Your task to perform on an android device: open a bookmark in the chrome app Image 0: 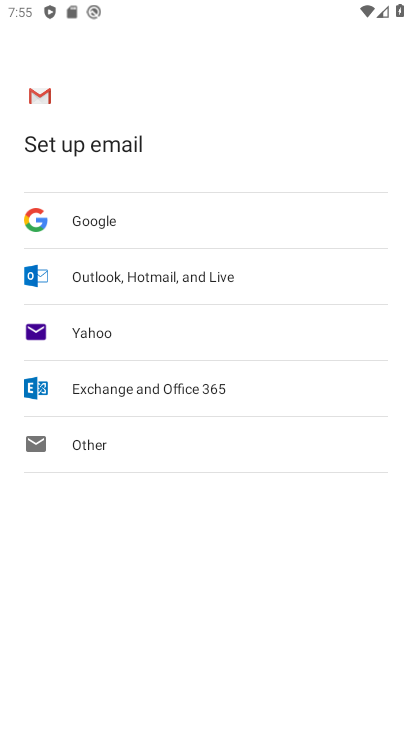
Step 0: press home button
Your task to perform on an android device: open a bookmark in the chrome app Image 1: 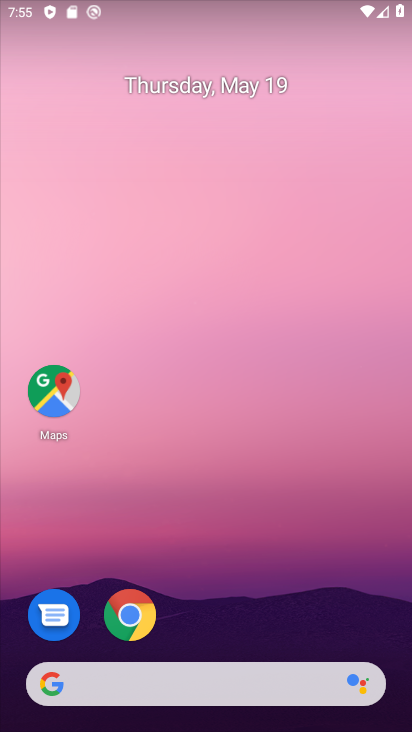
Step 1: click (128, 616)
Your task to perform on an android device: open a bookmark in the chrome app Image 2: 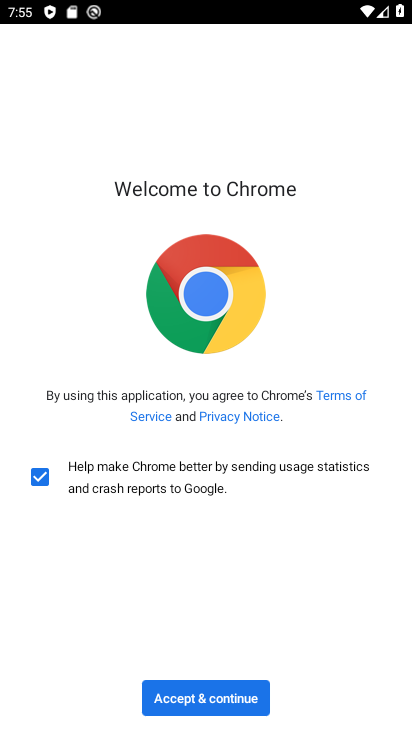
Step 2: click (212, 698)
Your task to perform on an android device: open a bookmark in the chrome app Image 3: 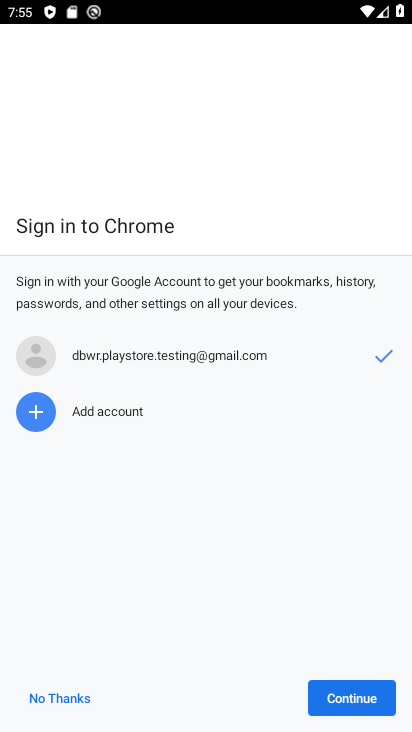
Step 3: click (349, 699)
Your task to perform on an android device: open a bookmark in the chrome app Image 4: 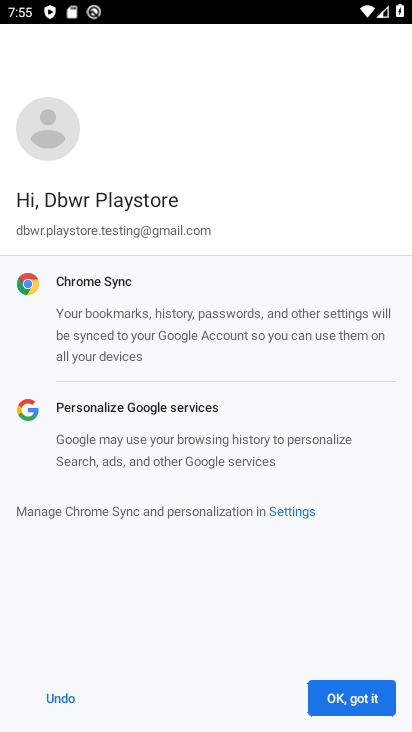
Step 4: click (348, 699)
Your task to perform on an android device: open a bookmark in the chrome app Image 5: 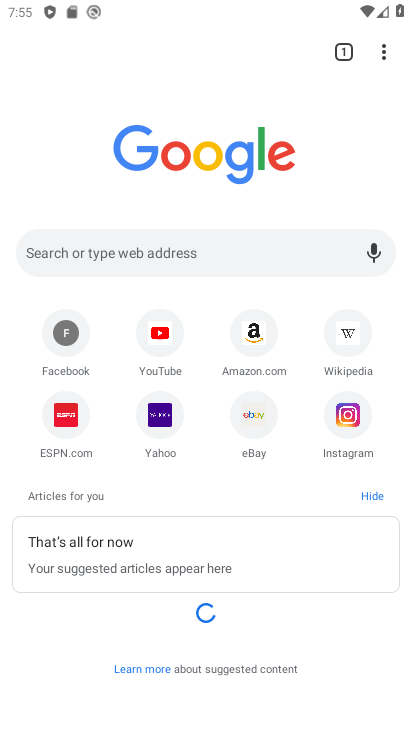
Step 5: click (372, 58)
Your task to perform on an android device: open a bookmark in the chrome app Image 6: 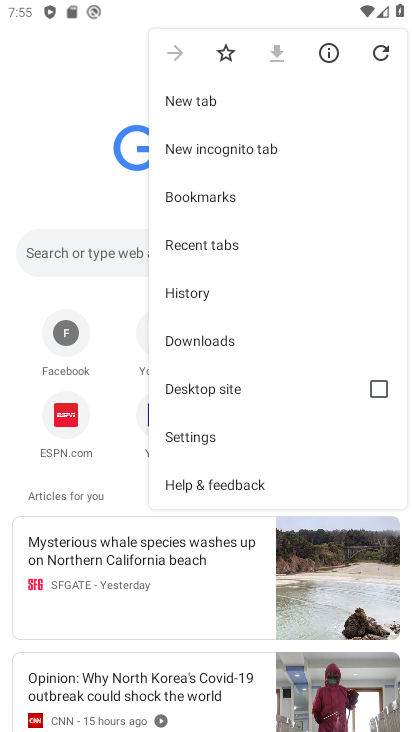
Step 6: click (215, 192)
Your task to perform on an android device: open a bookmark in the chrome app Image 7: 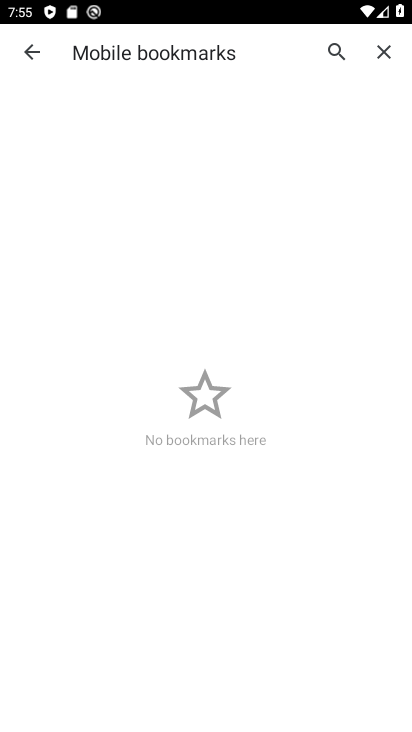
Step 7: task complete